Your task to perform on an android device: turn vacation reply on in the gmail app Image 0: 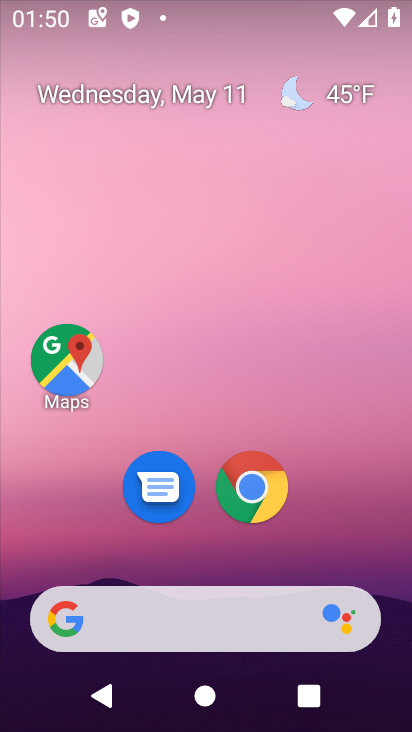
Step 0: drag from (154, 585) to (296, 150)
Your task to perform on an android device: turn vacation reply on in the gmail app Image 1: 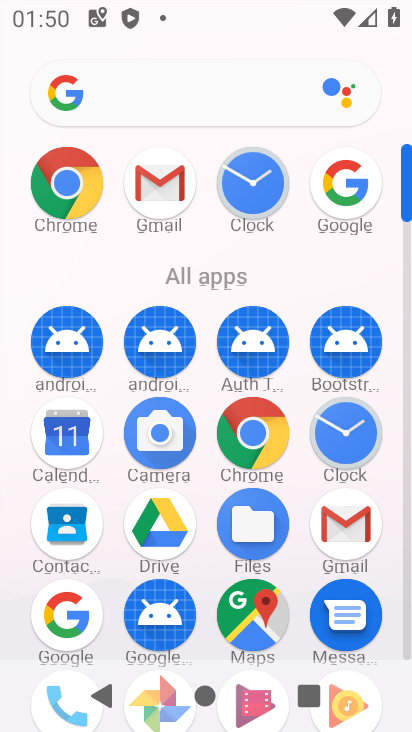
Step 1: click (360, 528)
Your task to perform on an android device: turn vacation reply on in the gmail app Image 2: 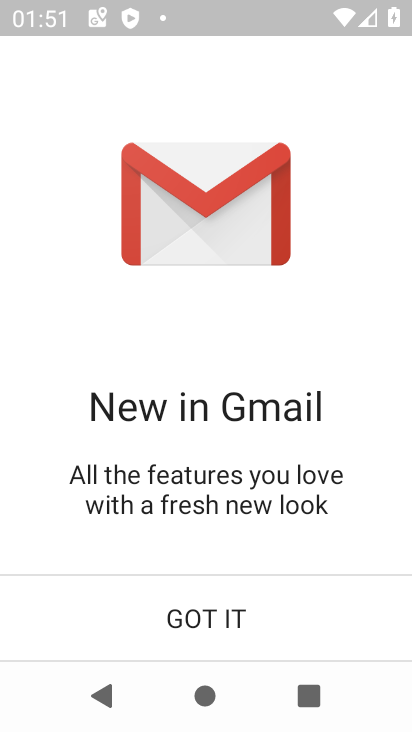
Step 2: click (236, 627)
Your task to perform on an android device: turn vacation reply on in the gmail app Image 3: 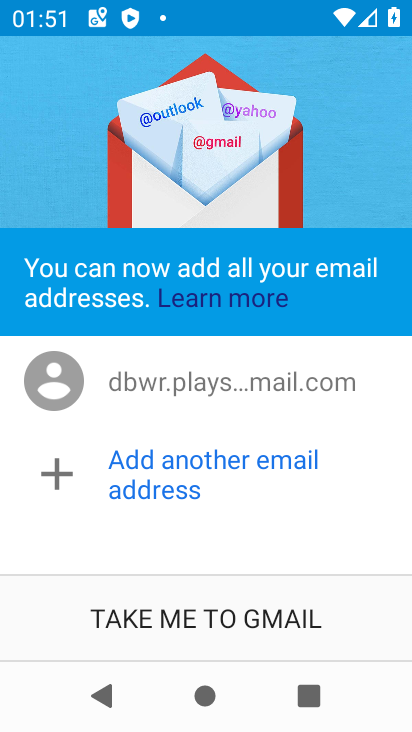
Step 3: click (237, 626)
Your task to perform on an android device: turn vacation reply on in the gmail app Image 4: 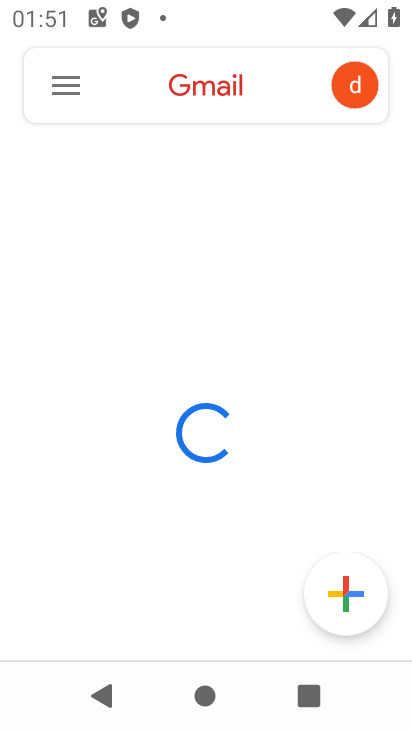
Step 4: click (79, 88)
Your task to perform on an android device: turn vacation reply on in the gmail app Image 5: 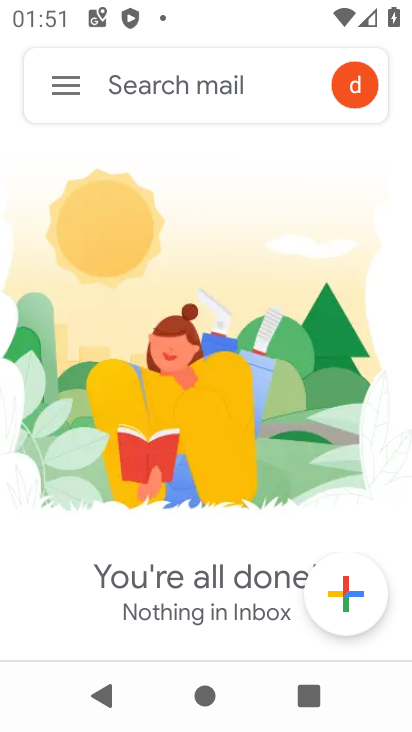
Step 5: click (78, 91)
Your task to perform on an android device: turn vacation reply on in the gmail app Image 6: 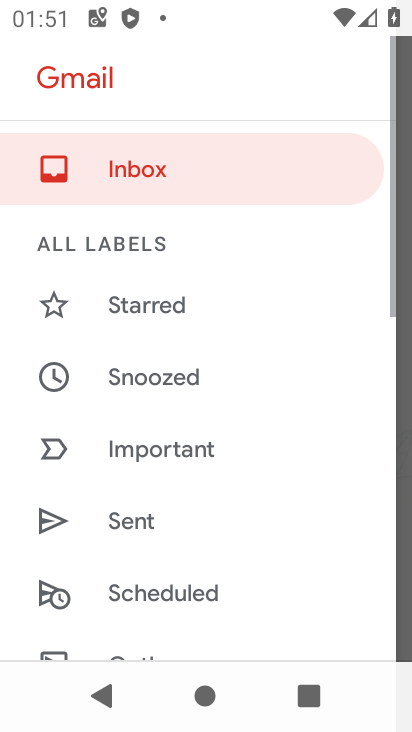
Step 6: drag from (154, 594) to (292, 172)
Your task to perform on an android device: turn vacation reply on in the gmail app Image 7: 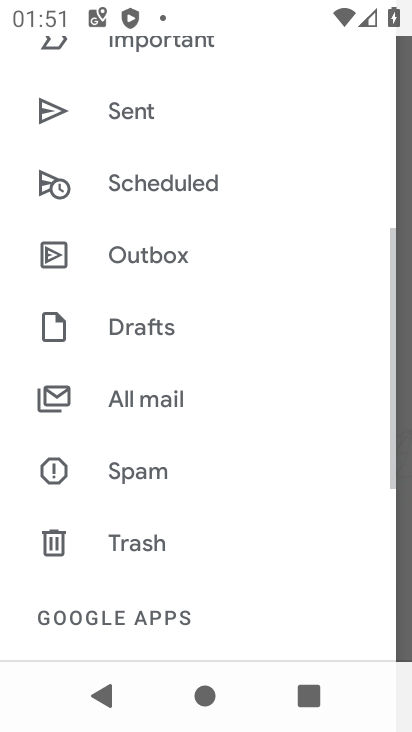
Step 7: drag from (211, 610) to (307, 208)
Your task to perform on an android device: turn vacation reply on in the gmail app Image 8: 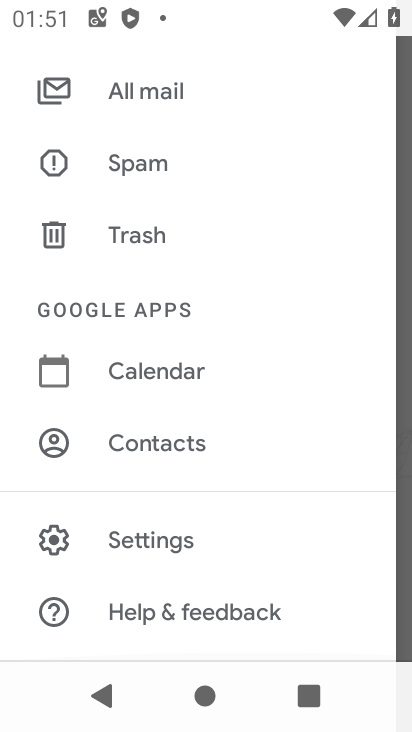
Step 8: click (216, 535)
Your task to perform on an android device: turn vacation reply on in the gmail app Image 9: 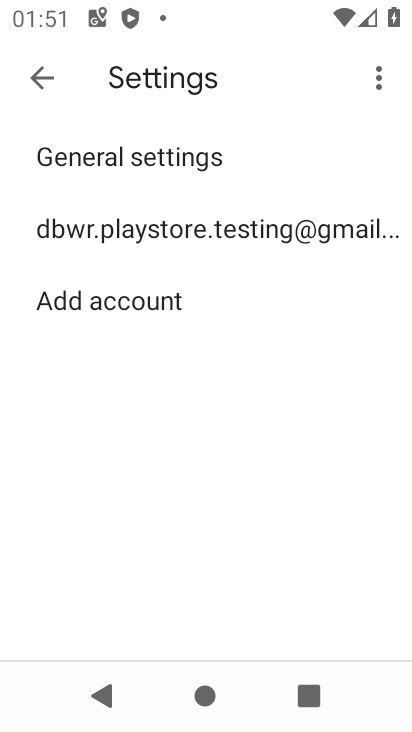
Step 9: click (274, 233)
Your task to perform on an android device: turn vacation reply on in the gmail app Image 10: 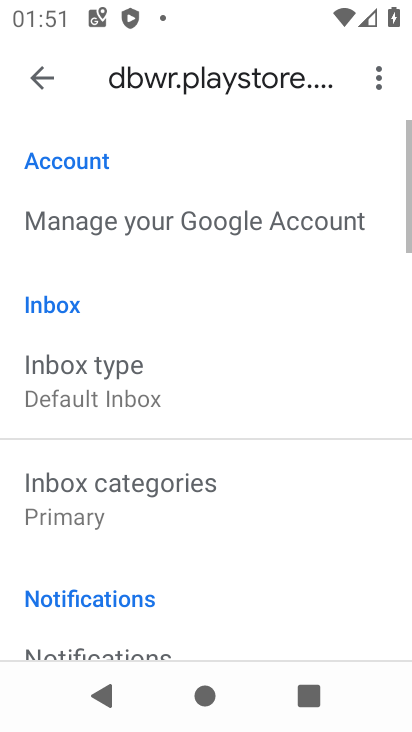
Step 10: drag from (217, 626) to (400, 118)
Your task to perform on an android device: turn vacation reply on in the gmail app Image 11: 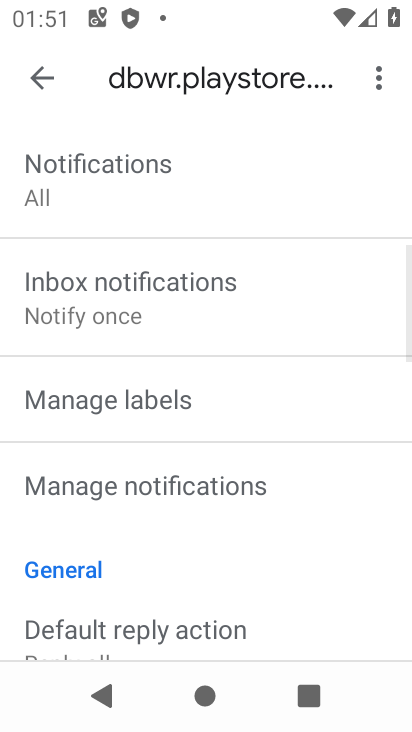
Step 11: drag from (245, 496) to (372, 143)
Your task to perform on an android device: turn vacation reply on in the gmail app Image 12: 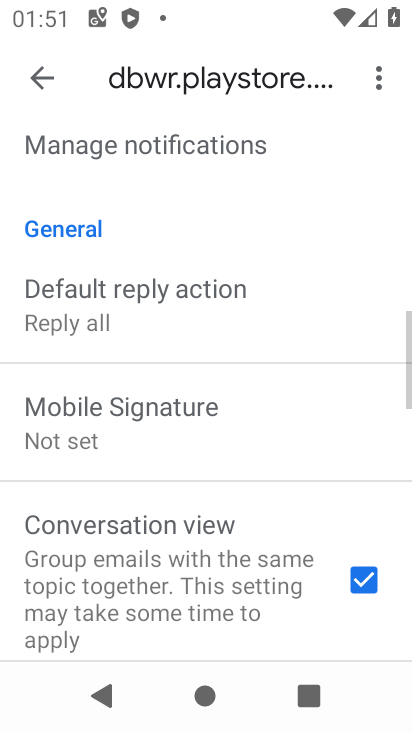
Step 12: drag from (202, 562) to (302, 184)
Your task to perform on an android device: turn vacation reply on in the gmail app Image 13: 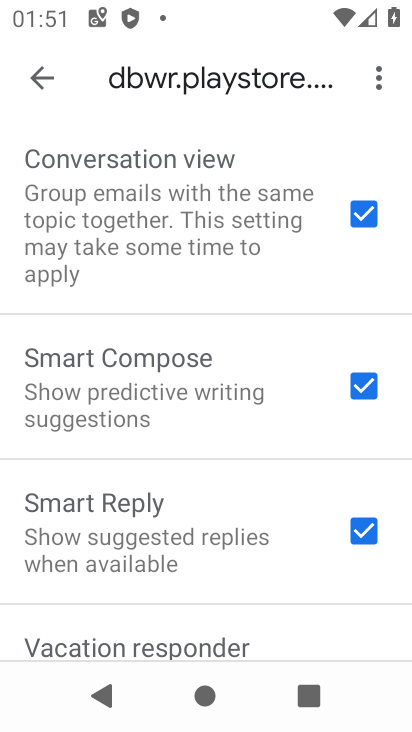
Step 13: drag from (206, 608) to (265, 365)
Your task to perform on an android device: turn vacation reply on in the gmail app Image 14: 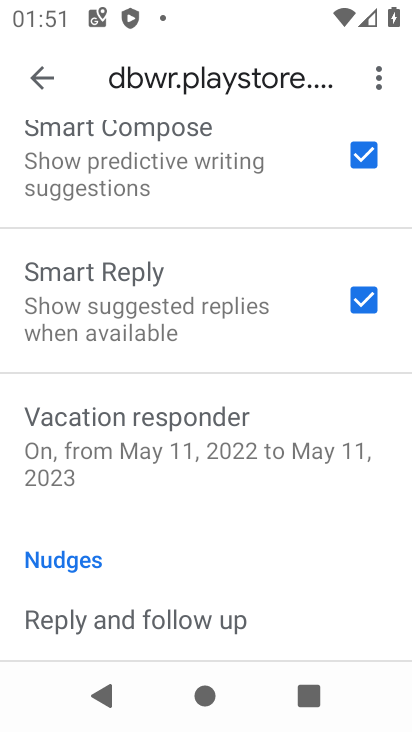
Step 14: click (253, 445)
Your task to perform on an android device: turn vacation reply on in the gmail app Image 15: 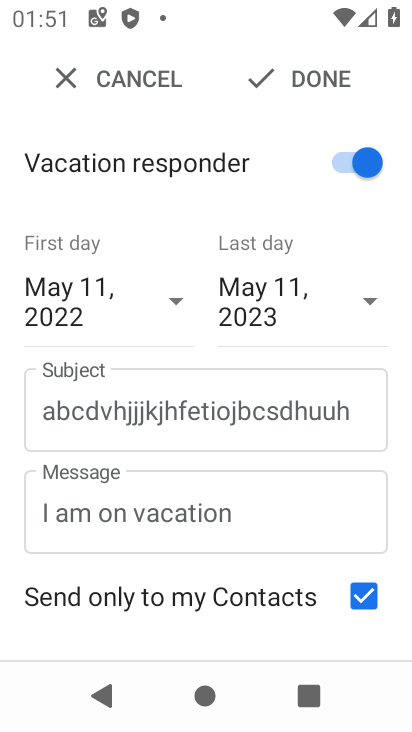
Step 15: task complete